Your task to perform on an android device: Open calendar and show me the second week of next month Image 0: 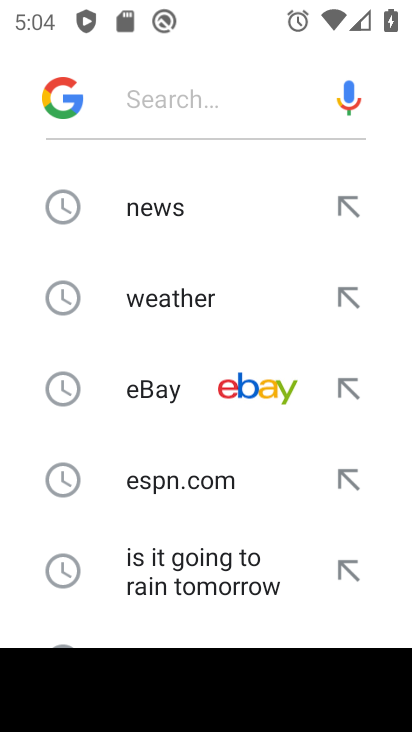
Step 0: press home button
Your task to perform on an android device: Open calendar and show me the second week of next month Image 1: 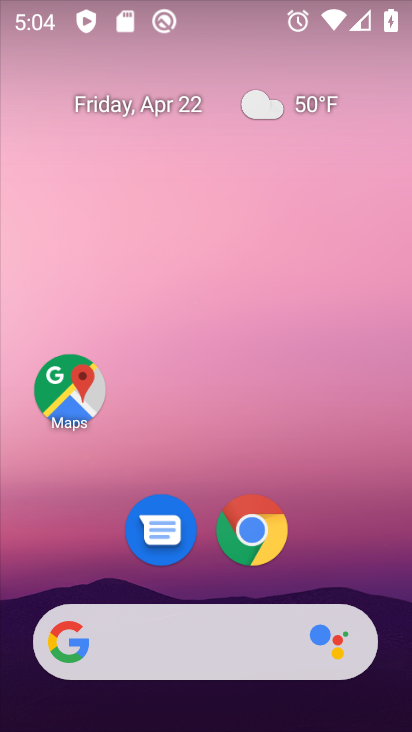
Step 1: click (299, 130)
Your task to perform on an android device: Open calendar and show me the second week of next month Image 2: 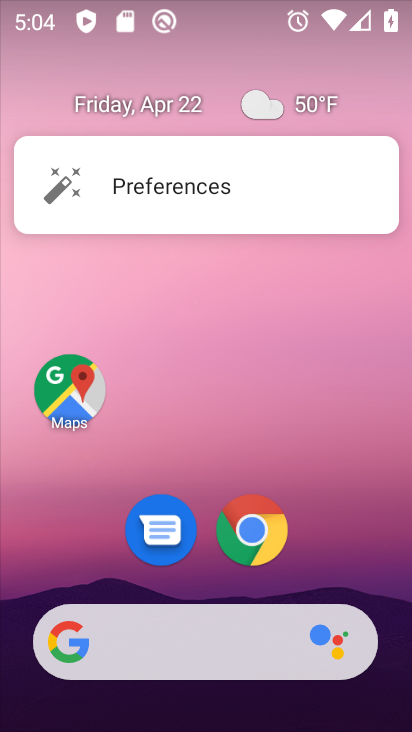
Step 2: drag from (352, 506) to (322, 101)
Your task to perform on an android device: Open calendar and show me the second week of next month Image 3: 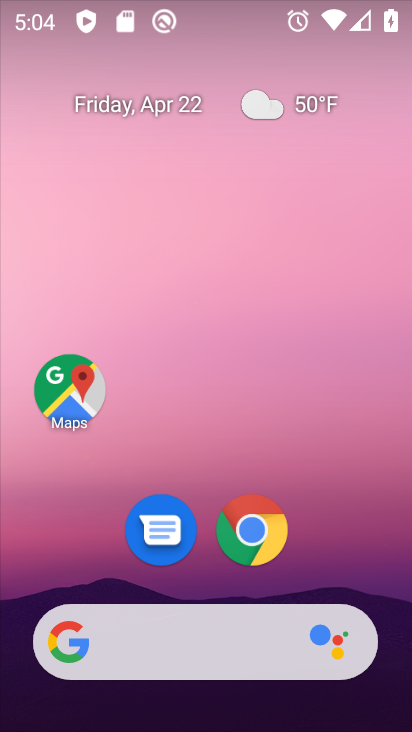
Step 3: drag from (362, 575) to (356, 145)
Your task to perform on an android device: Open calendar and show me the second week of next month Image 4: 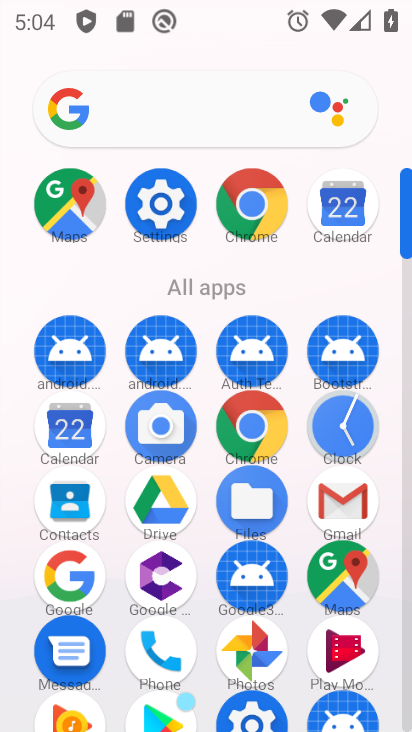
Step 4: click (81, 428)
Your task to perform on an android device: Open calendar and show me the second week of next month Image 5: 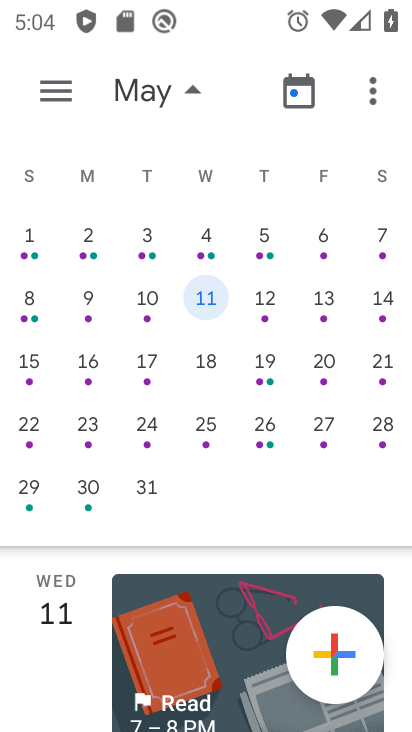
Step 5: click (151, 290)
Your task to perform on an android device: Open calendar and show me the second week of next month Image 6: 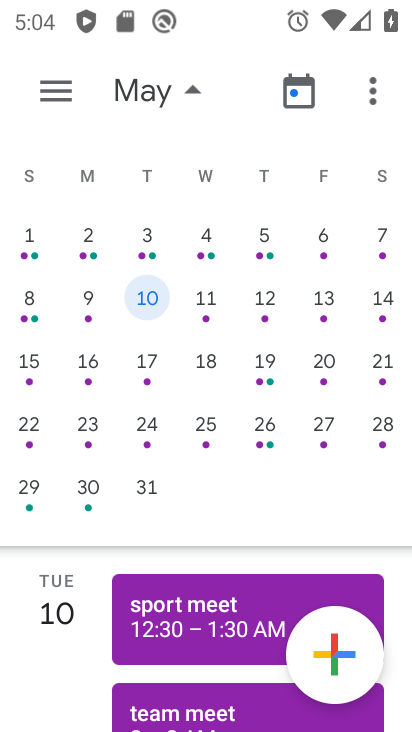
Step 6: task complete